Your task to perform on an android device: Do I have any events this weekend? Image 0: 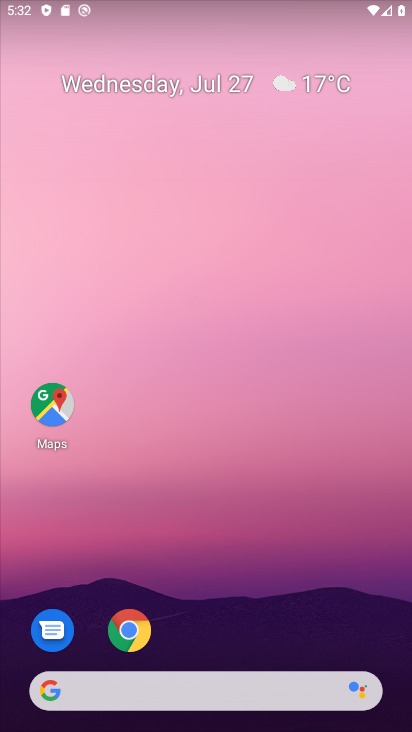
Step 0: press home button
Your task to perform on an android device: Do I have any events this weekend? Image 1: 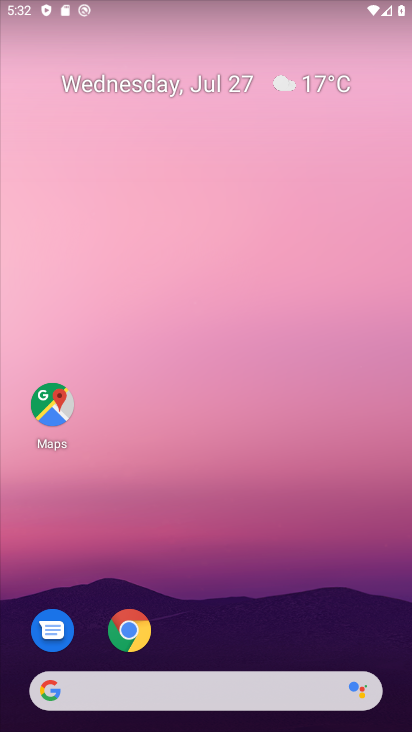
Step 1: drag from (222, 646) to (205, 128)
Your task to perform on an android device: Do I have any events this weekend? Image 2: 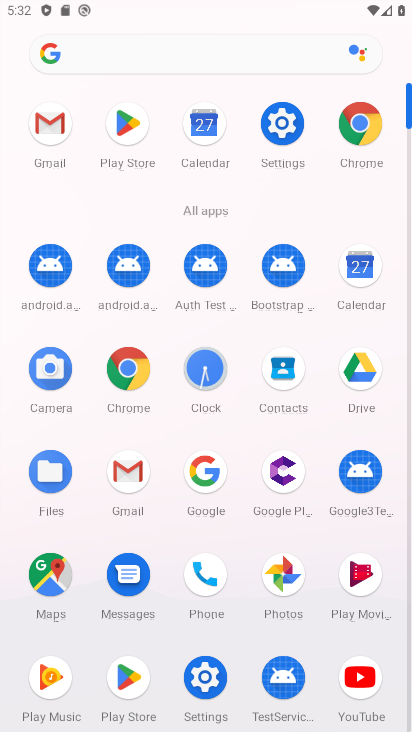
Step 2: click (354, 264)
Your task to perform on an android device: Do I have any events this weekend? Image 3: 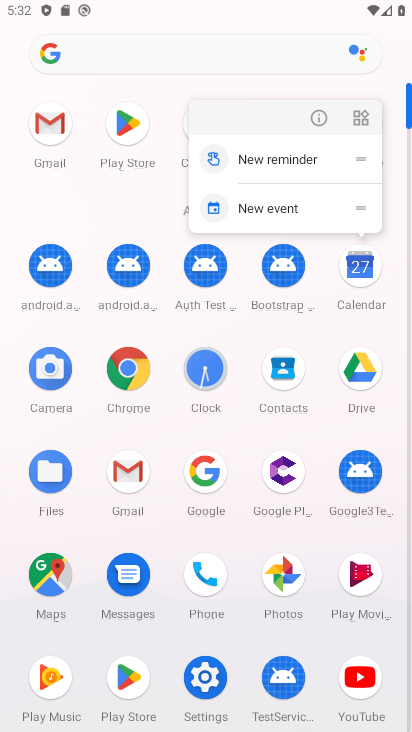
Step 3: click (360, 271)
Your task to perform on an android device: Do I have any events this weekend? Image 4: 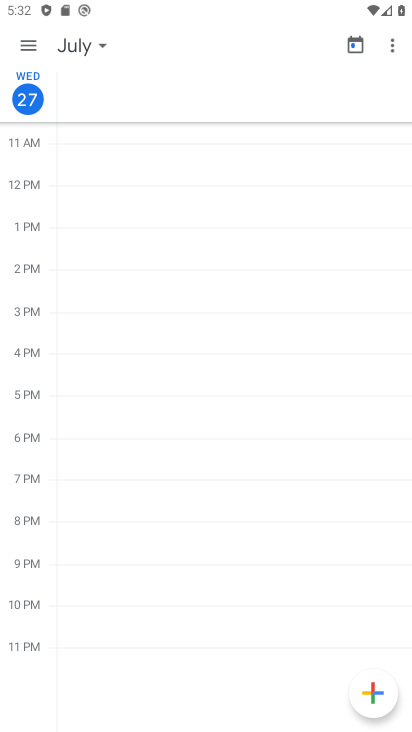
Step 4: click (104, 48)
Your task to perform on an android device: Do I have any events this weekend? Image 5: 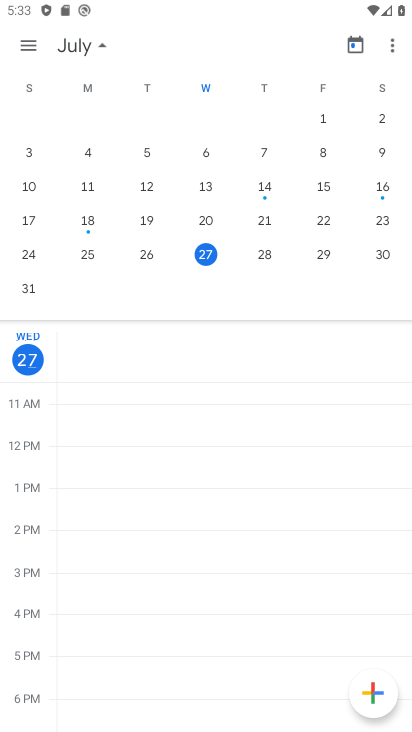
Step 5: click (23, 44)
Your task to perform on an android device: Do I have any events this weekend? Image 6: 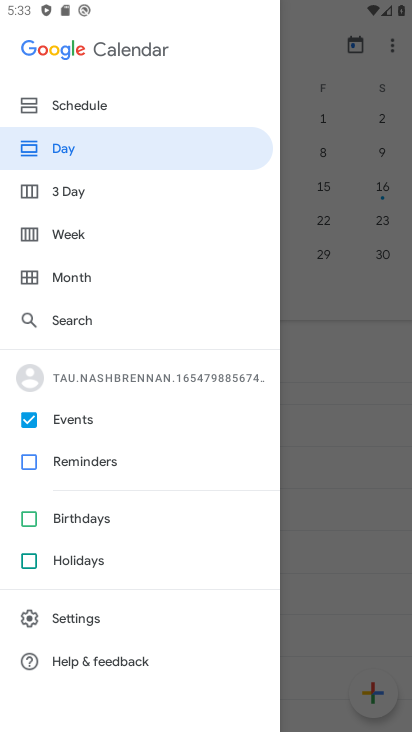
Step 6: click (63, 229)
Your task to perform on an android device: Do I have any events this weekend? Image 7: 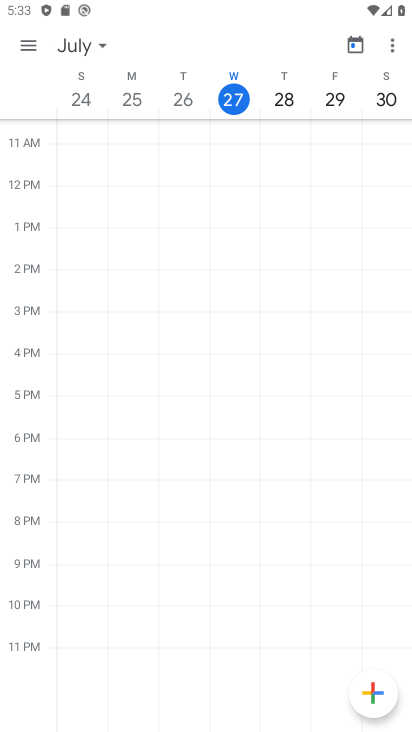
Step 7: task complete